Your task to perform on an android device: visit the assistant section in the google photos Image 0: 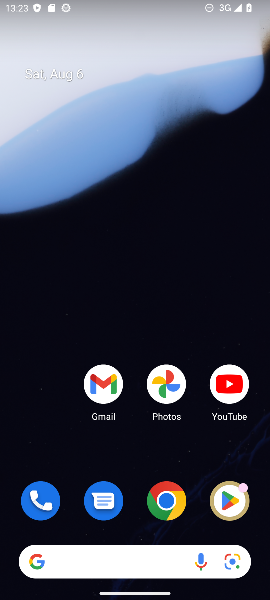
Step 0: click (166, 385)
Your task to perform on an android device: visit the assistant section in the google photos Image 1: 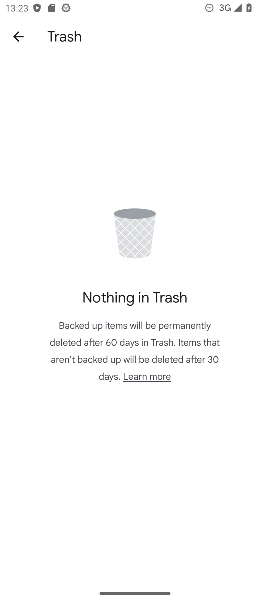
Step 1: click (14, 34)
Your task to perform on an android device: visit the assistant section in the google photos Image 2: 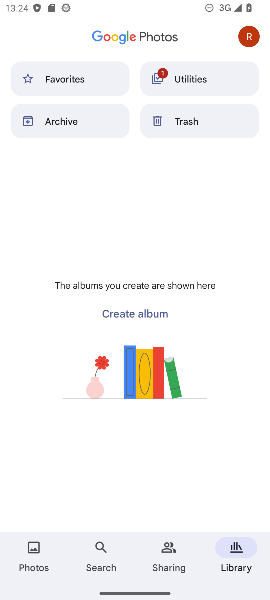
Step 2: click (36, 558)
Your task to perform on an android device: visit the assistant section in the google photos Image 3: 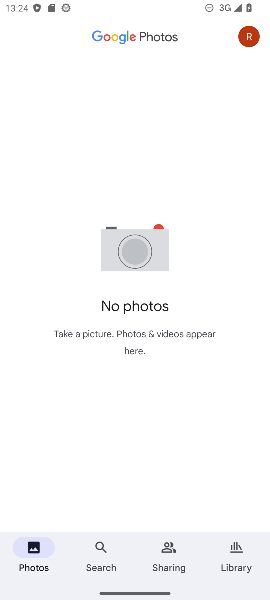
Step 3: task complete